Your task to perform on an android device: clear history in the chrome app Image 0: 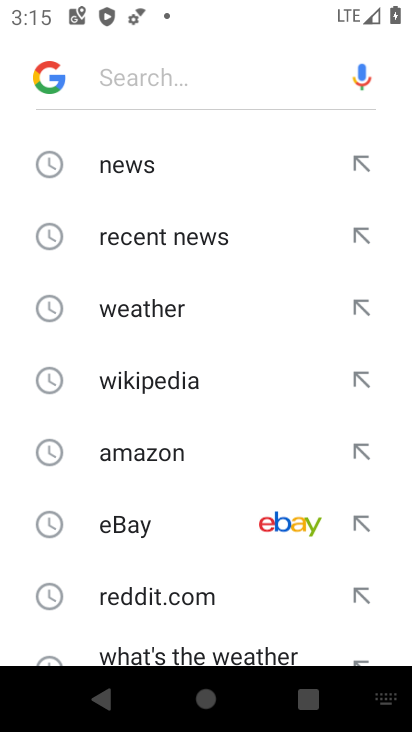
Step 0: press home button
Your task to perform on an android device: clear history in the chrome app Image 1: 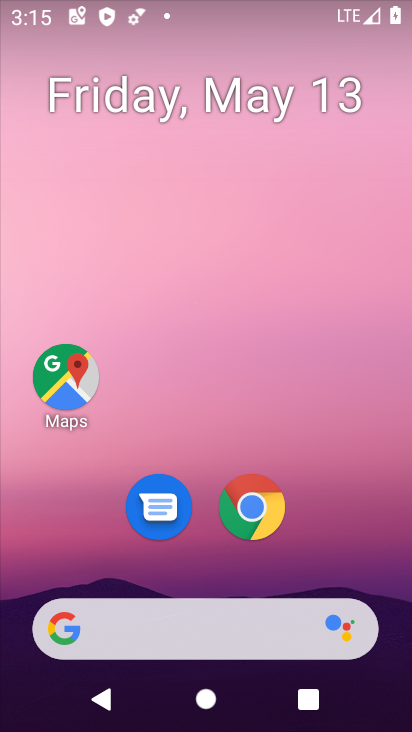
Step 1: click (276, 513)
Your task to perform on an android device: clear history in the chrome app Image 2: 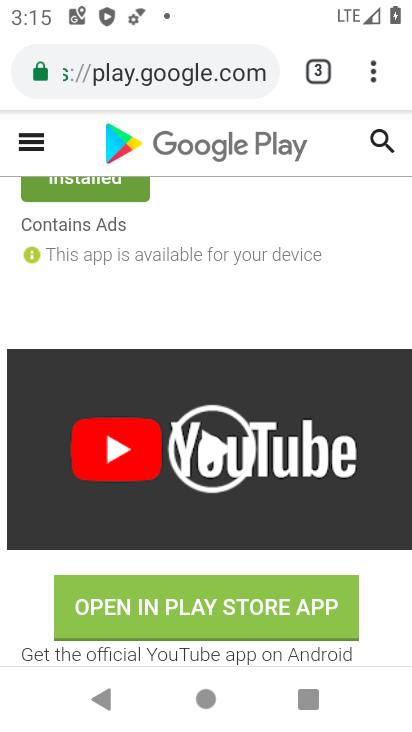
Step 2: click (381, 71)
Your task to perform on an android device: clear history in the chrome app Image 3: 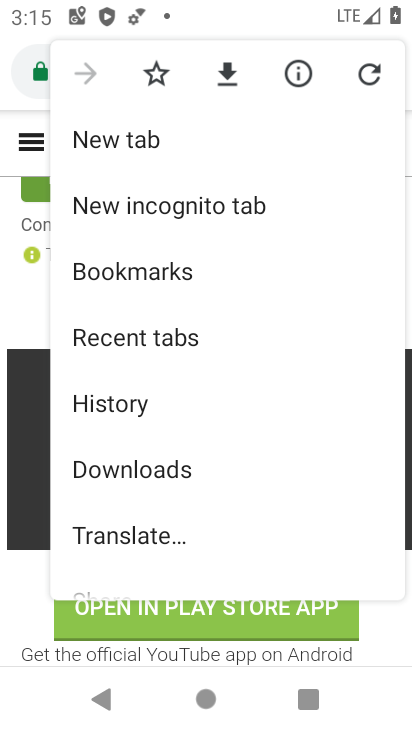
Step 3: drag from (209, 527) to (293, 101)
Your task to perform on an android device: clear history in the chrome app Image 4: 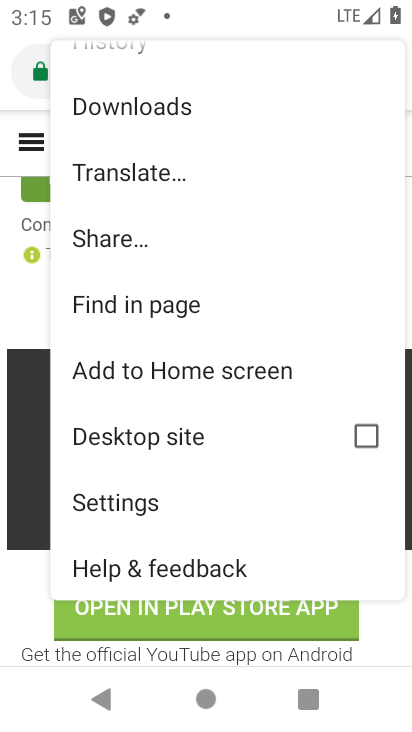
Step 4: click (238, 499)
Your task to perform on an android device: clear history in the chrome app Image 5: 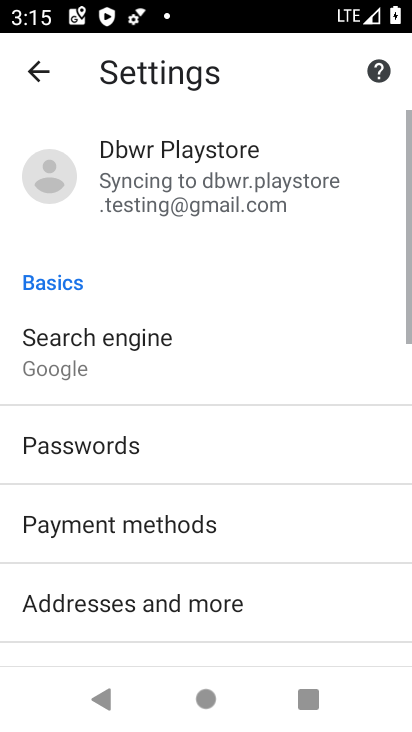
Step 5: drag from (235, 475) to (287, 69)
Your task to perform on an android device: clear history in the chrome app Image 6: 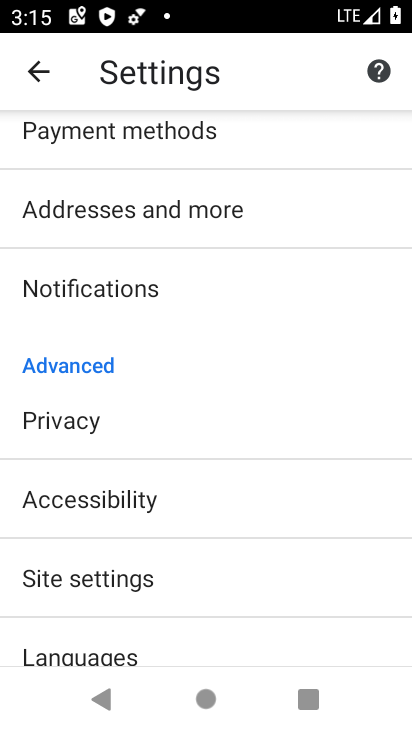
Step 6: drag from (248, 499) to (285, 94)
Your task to perform on an android device: clear history in the chrome app Image 7: 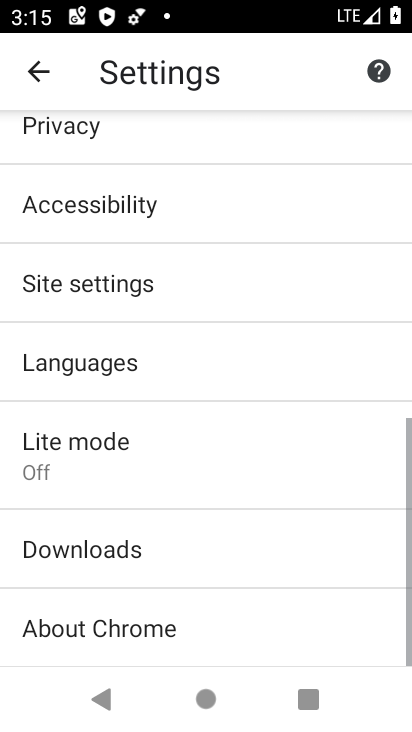
Step 7: drag from (227, 506) to (279, 176)
Your task to perform on an android device: clear history in the chrome app Image 8: 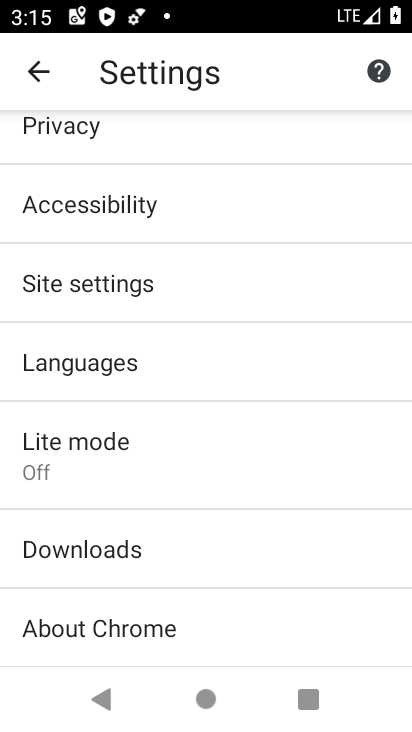
Step 8: click (183, 272)
Your task to perform on an android device: clear history in the chrome app Image 9: 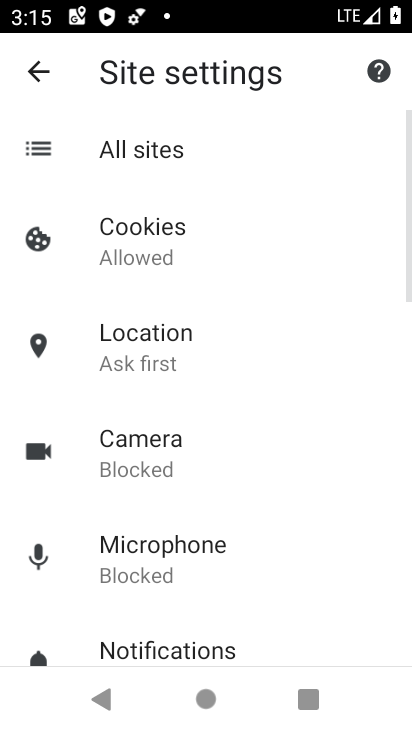
Step 9: drag from (252, 521) to (276, 135)
Your task to perform on an android device: clear history in the chrome app Image 10: 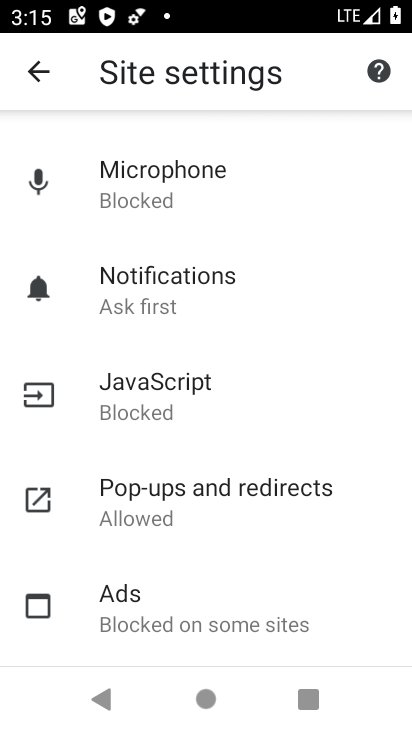
Step 10: drag from (197, 588) to (312, 147)
Your task to perform on an android device: clear history in the chrome app Image 11: 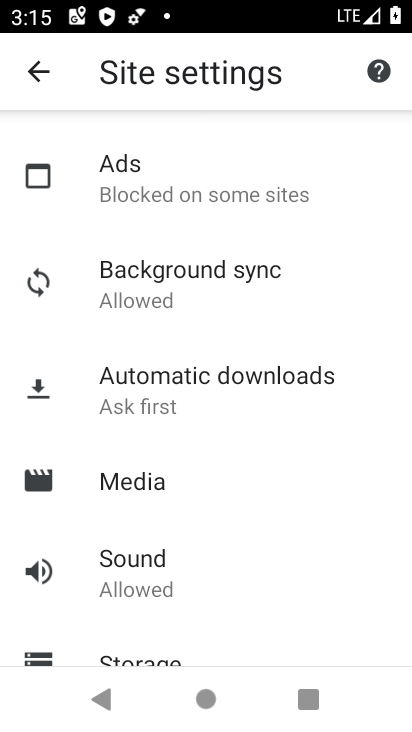
Step 11: drag from (251, 505) to (298, 159)
Your task to perform on an android device: clear history in the chrome app Image 12: 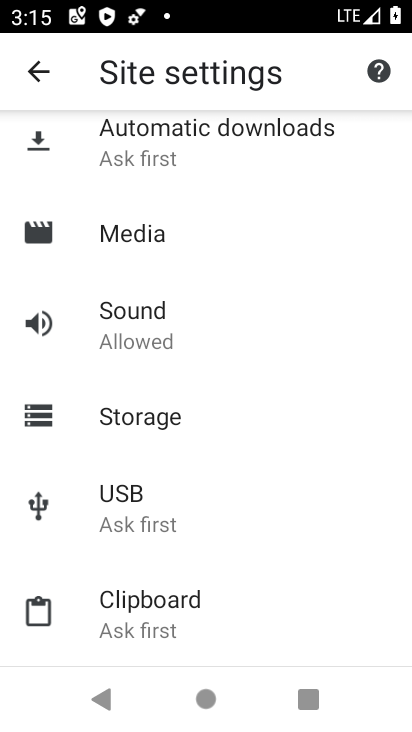
Step 12: drag from (228, 551) to (311, 135)
Your task to perform on an android device: clear history in the chrome app Image 13: 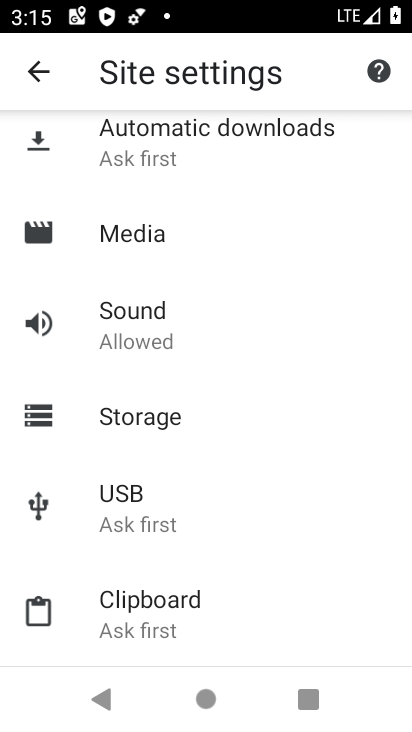
Step 13: press back button
Your task to perform on an android device: clear history in the chrome app Image 14: 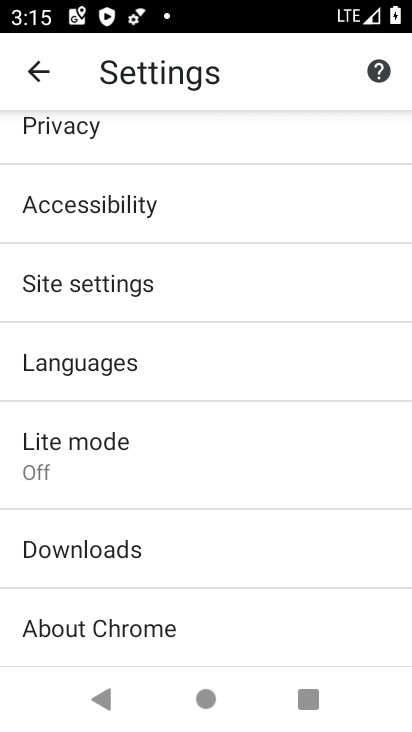
Step 14: drag from (251, 518) to (273, 157)
Your task to perform on an android device: clear history in the chrome app Image 15: 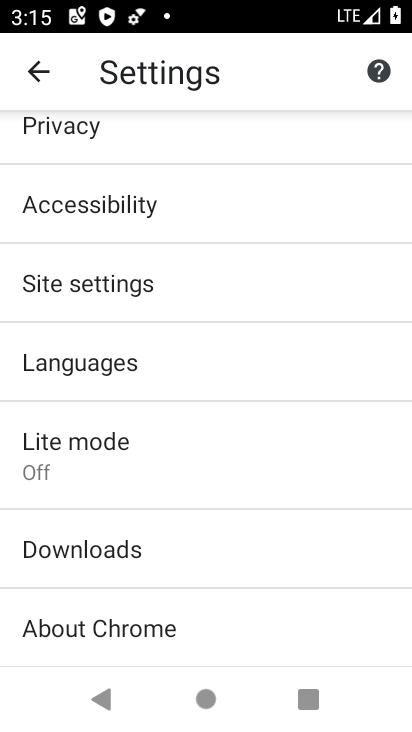
Step 15: click (210, 623)
Your task to perform on an android device: clear history in the chrome app Image 16: 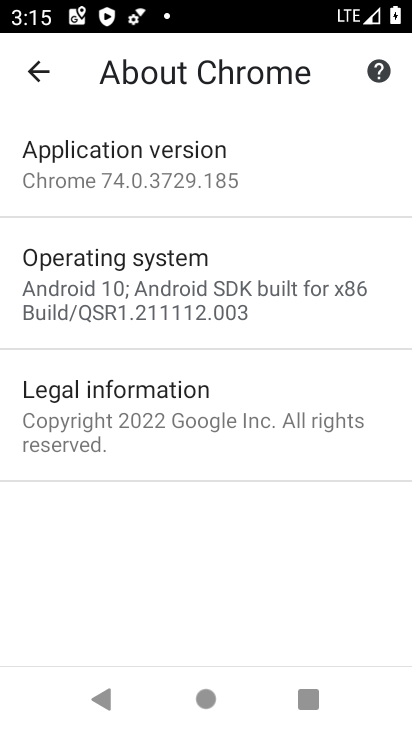
Step 16: press back button
Your task to perform on an android device: clear history in the chrome app Image 17: 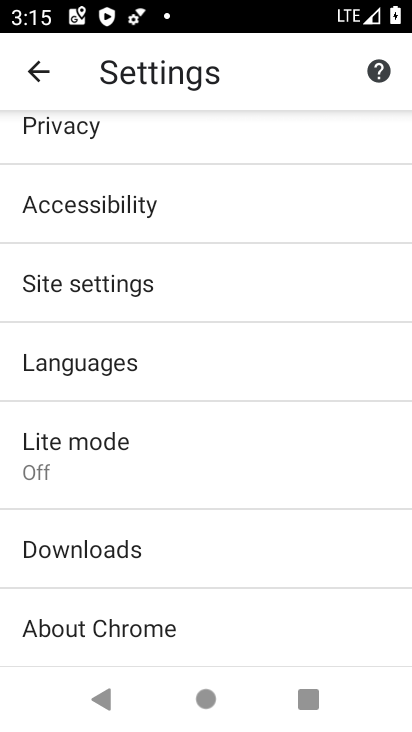
Step 17: drag from (241, 226) to (224, 519)
Your task to perform on an android device: clear history in the chrome app Image 18: 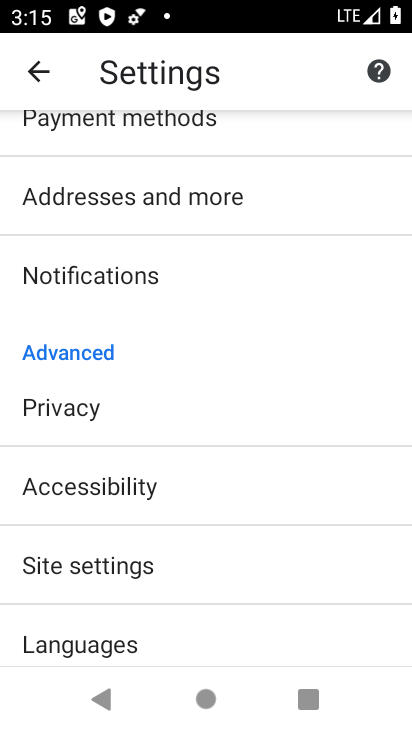
Step 18: click (214, 480)
Your task to perform on an android device: clear history in the chrome app Image 19: 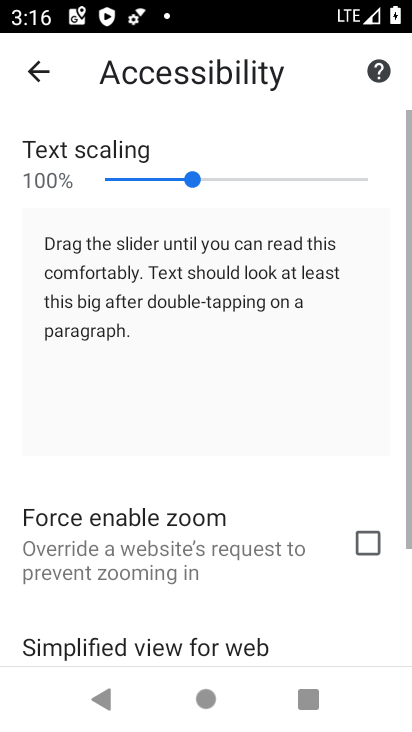
Step 19: drag from (201, 507) to (251, 162)
Your task to perform on an android device: clear history in the chrome app Image 20: 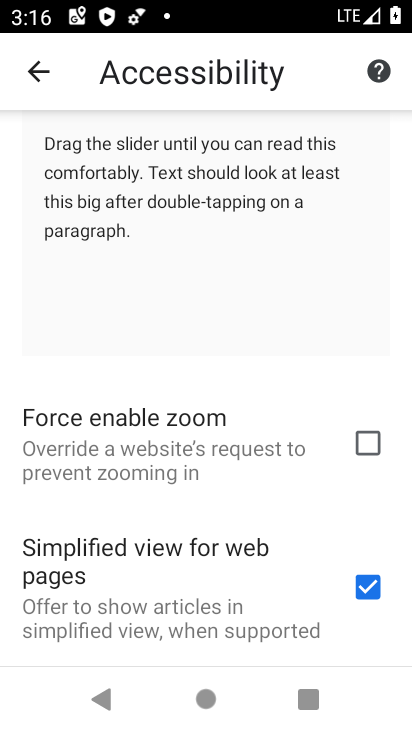
Step 20: drag from (188, 616) to (220, 302)
Your task to perform on an android device: clear history in the chrome app Image 21: 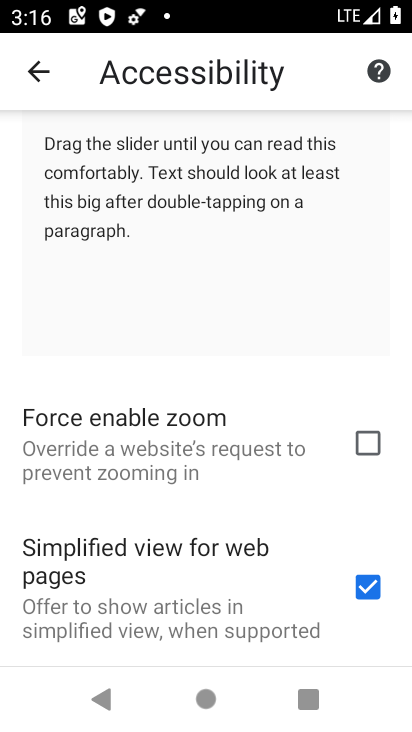
Step 21: press back button
Your task to perform on an android device: clear history in the chrome app Image 22: 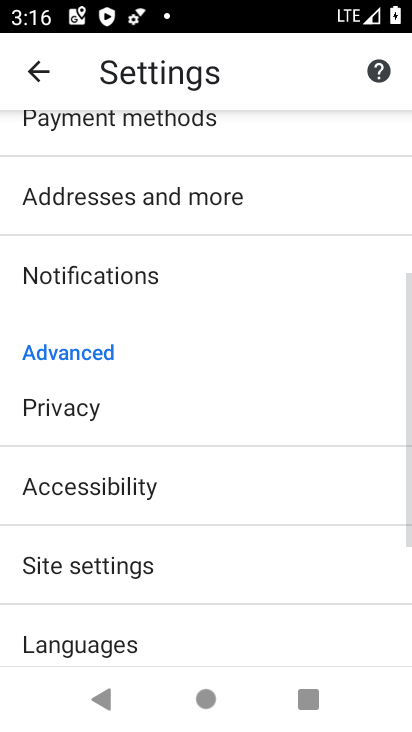
Step 22: click (192, 389)
Your task to perform on an android device: clear history in the chrome app Image 23: 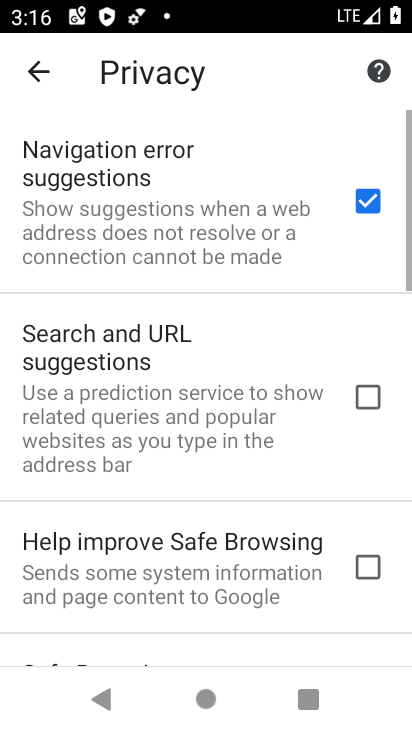
Step 23: drag from (214, 555) to (226, 149)
Your task to perform on an android device: clear history in the chrome app Image 24: 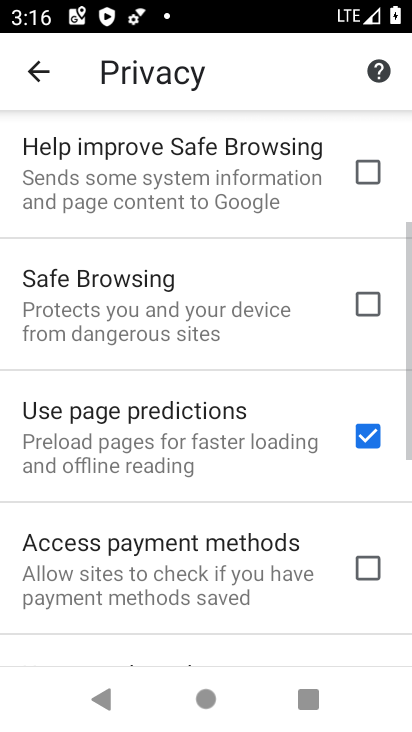
Step 24: drag from (166, 537) to (235, 172)
Your task to perform on an android device: clear history in the chrome app Image 25: 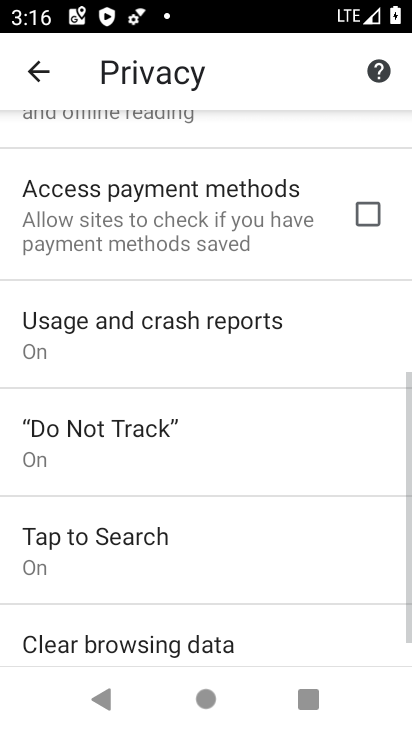
Step 25: drag from (164, 609) to (187, 217)
Your task to perform on an android device: clear history in the chrome app Image 26: 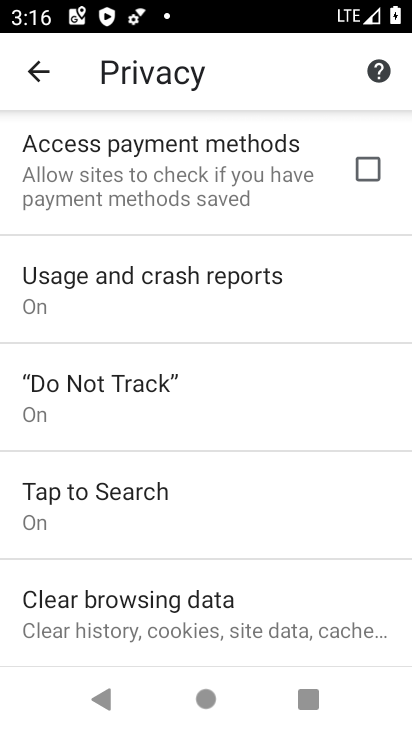
Step 26: click (138, 618)
Your task to perform on an android device: clear history in the chrome app Image 27: 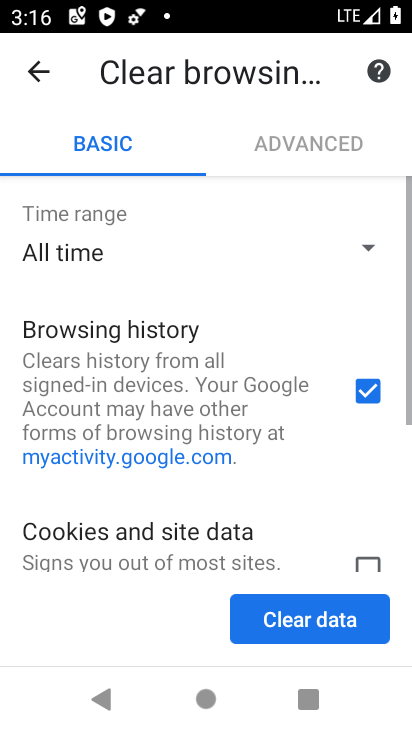
Step 27: drag from (114, 541) to (137, 271)
Your task to perform on an android device: clear history in the chrome app Image 28: 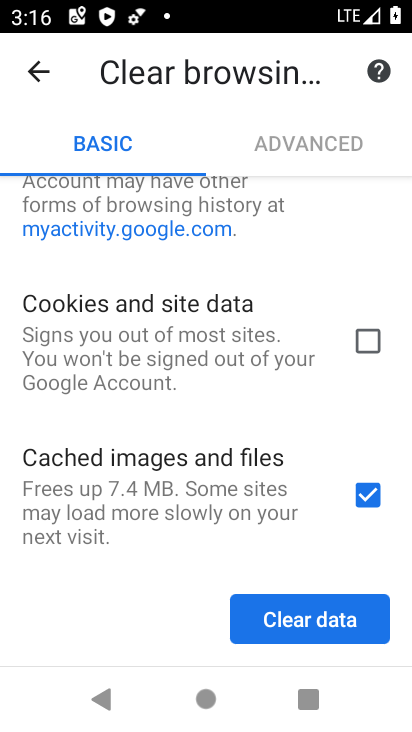
Step 28: drag from (136, 503) to (182, 299)
Your task to perform on an android device: clear history in the chrome app Image 29: 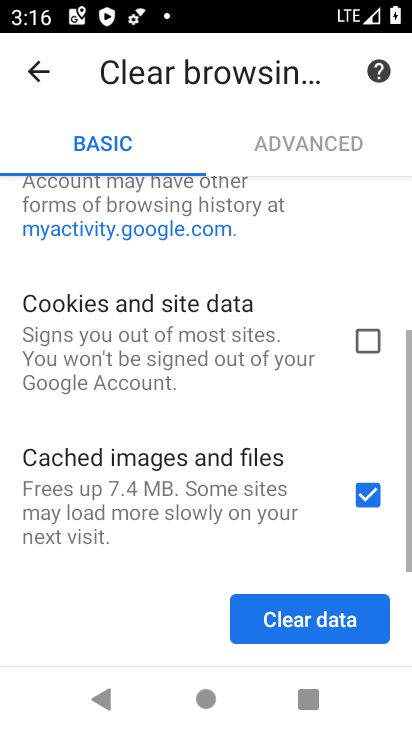
Step 29: drag from (224, 267) to (232, 522)
Your task to perform on an android device: clear history in the chrome app Image 30: 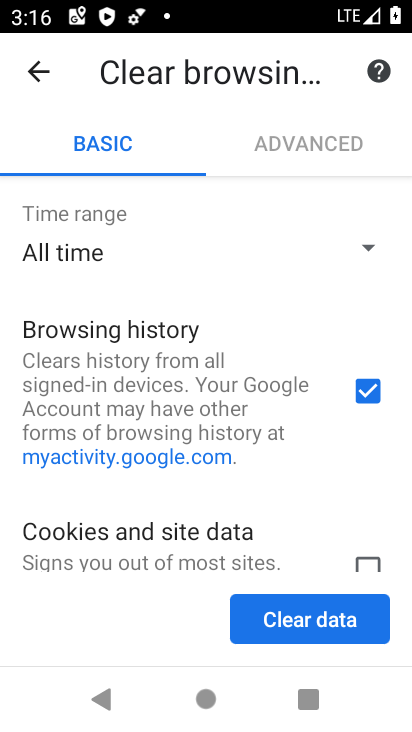
Step 30: click (305, 611)
Your task to perform on an android device: clear history in the chrome app Image 31: 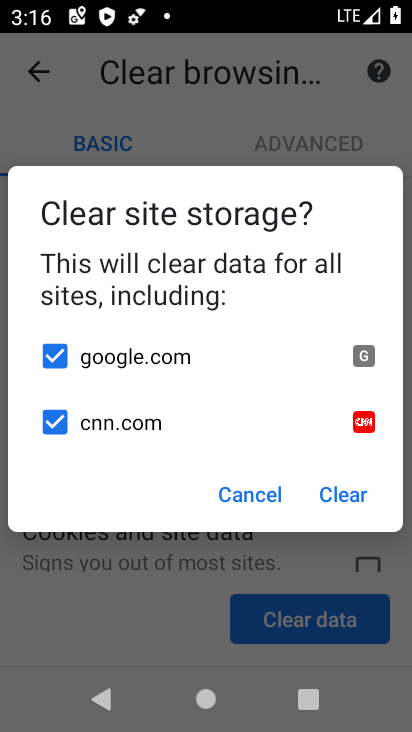
Step 31: click (331, 495)
Your task to perform on an android device: clear history in the chrome app Image 32: 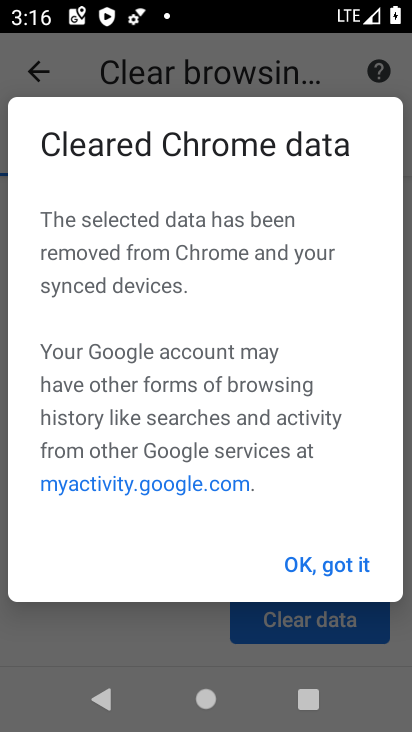
Step 32: click (331, 564)
Your task to perform on an android device: clear history in the chrome app Image 33: 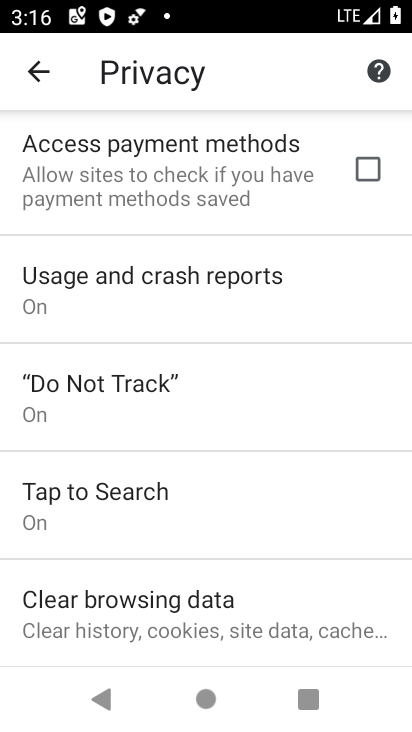
Step 33: task complete